Your task to perform on an android device: change notification settings in the gmail app Image 0: 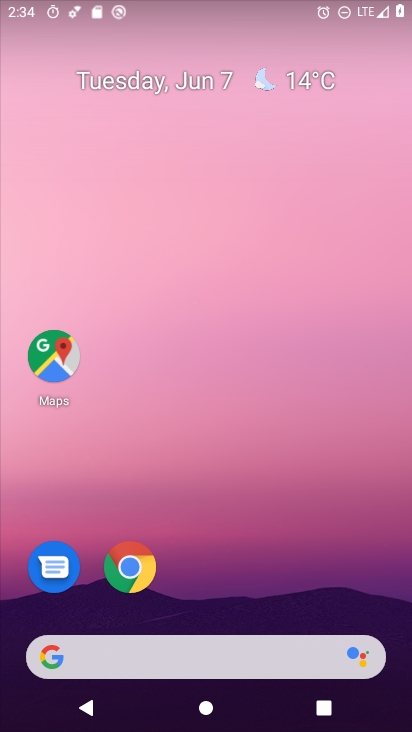
Step 0: drag from (230, 565) to (324, 22)
Your task to perform on an android device: change notification settings in the gmail app Image 1: 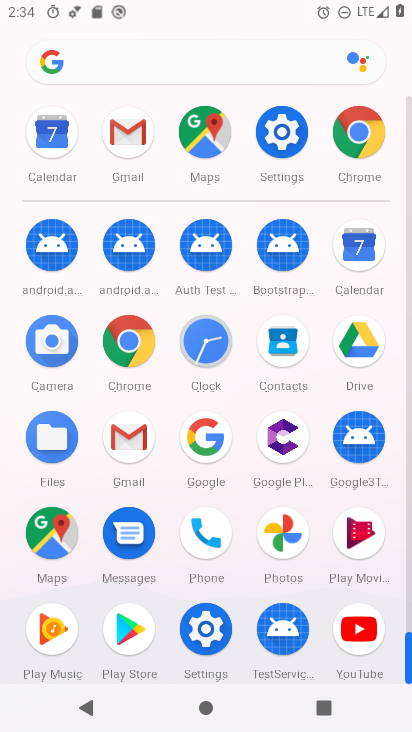
Step 1: click (299, 120)
Your task to perform on an android device: change notification settings in the gmail app Image 2: 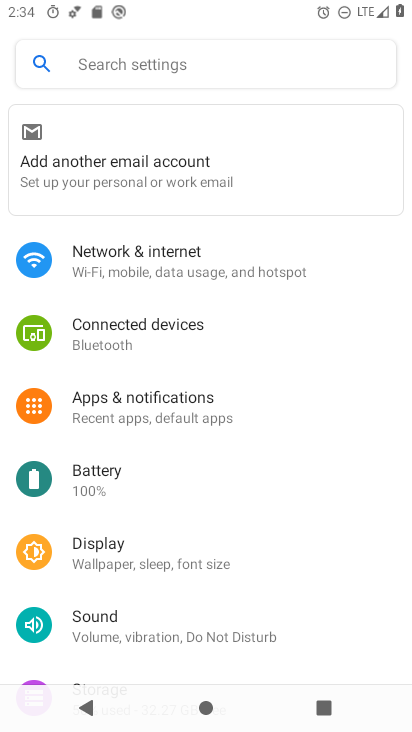
Step 2: click (134, 423)
Your task to perform on an android device: change notification settings in the gmail app Image 3: 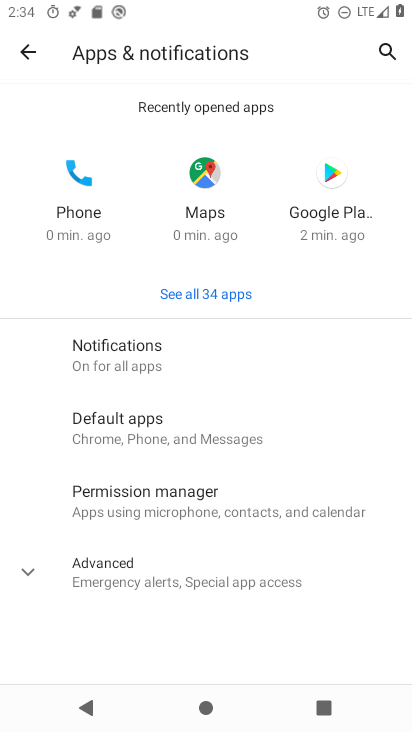
Step 3: click (116, 360)
Your task to perform on an android device: change notification settings in the gmail app Image 4: 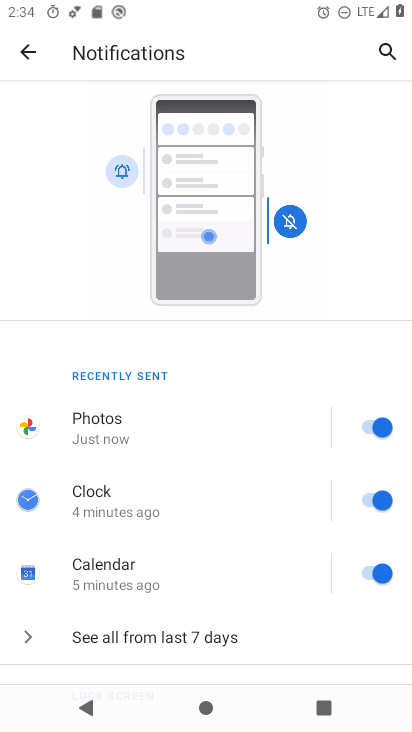
Step 4: drag from (137, 612) to (276, 73)
Your task to perform on an android device: change notification settings in the gmail app Image 5: 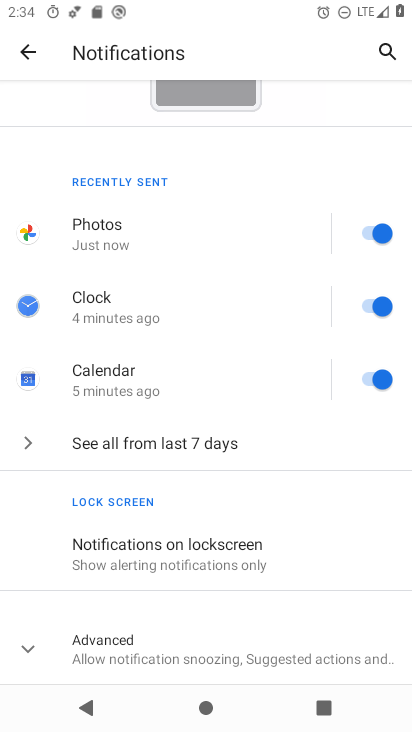
Step 5: click (159, 654)
Your task to perform on an android device: change notification settings in the gmail app Image 6: 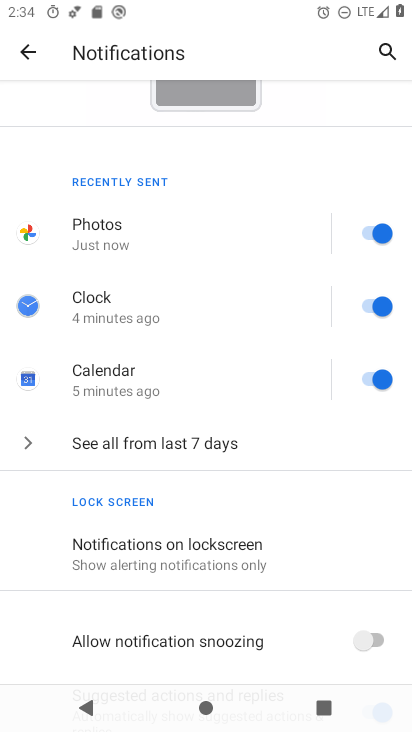
Step 6: click (379, 391)
Your task to perform on an android device: change notification settings in the gmail app Image 7: 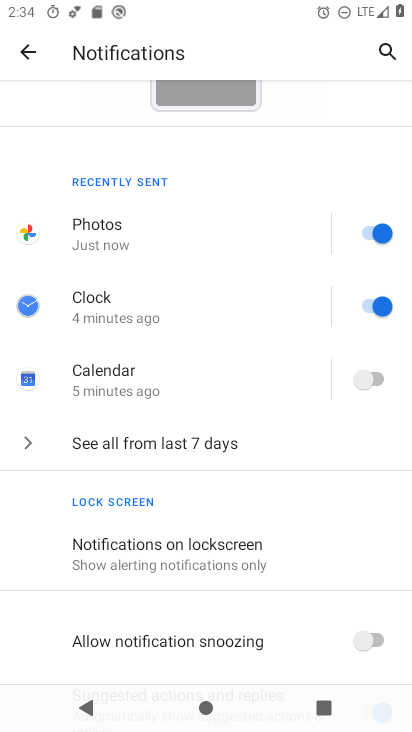
Step 7: task complete